Your task to perform on an android device: turn pop-ups off in chrome Image 0: 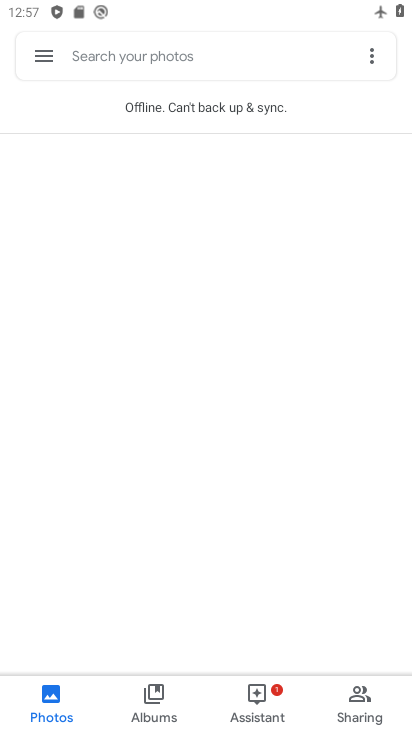
Step 0: press home button
Your task to perform on an android device: turn pop-ups off in chrome Image 1: 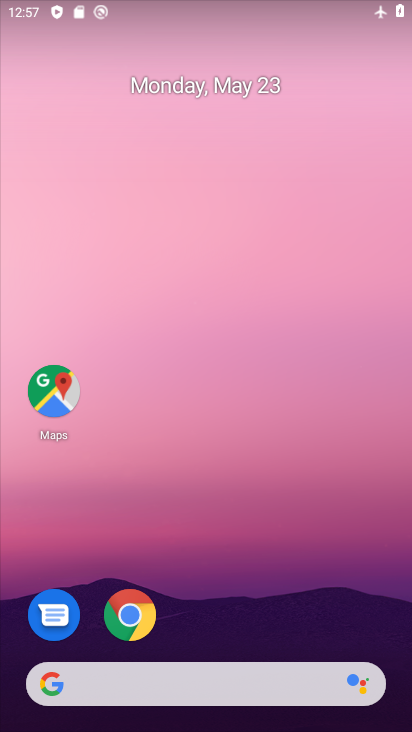
Step 1: click (138, 609)
Your task to perform on an android device: turn pop-ups off in chrome Image 2: 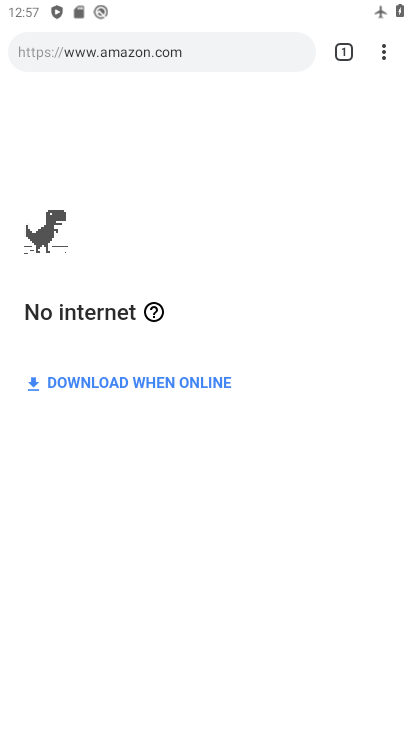
Step 2: click (383, 46)
Your task to perform on an android device: turn pop-ups off in chrome Image 3: 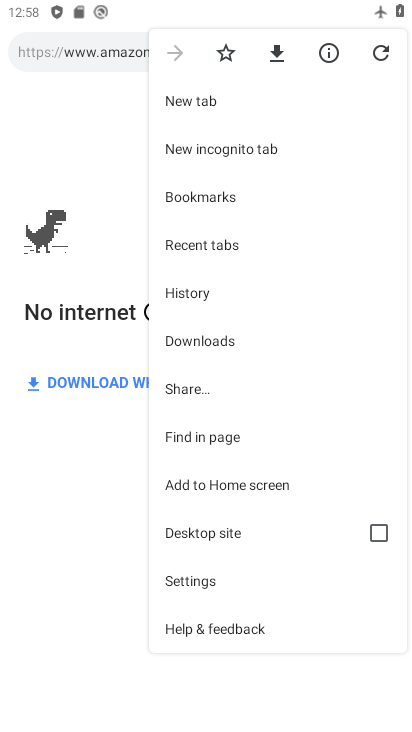
Step 3: click (162, 578)
Your task to perform on an android device: turn pop-ups off in chrome Image 4: 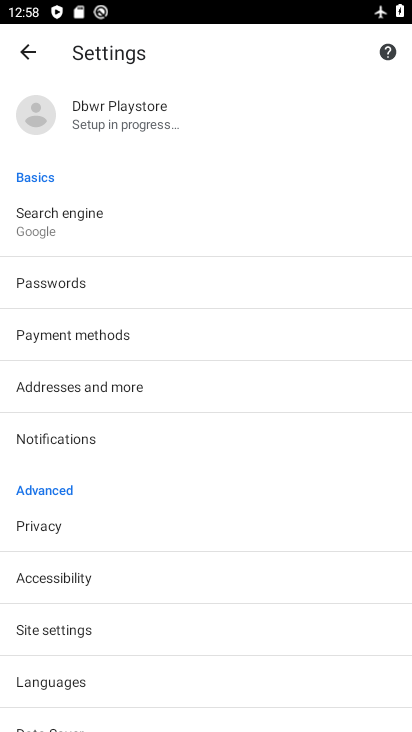
Step 4: click (61, 635)
Your task to perform on an android device: turn pop-ups off in chrome Image 5: 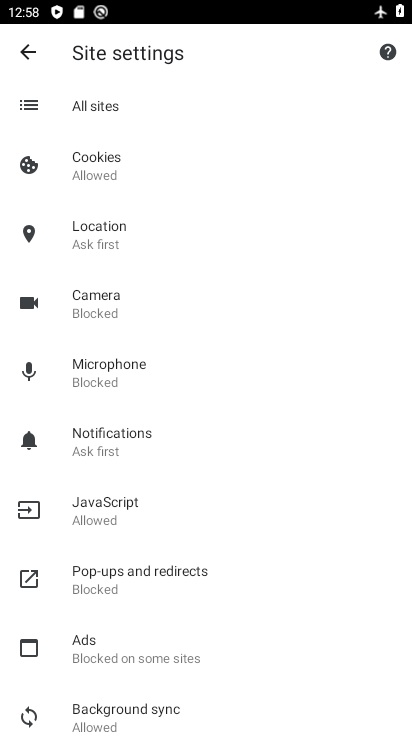
Step 5: click (122, 596)
Your task to perform on an android device: turn pop-ups off in chrome Image 6: 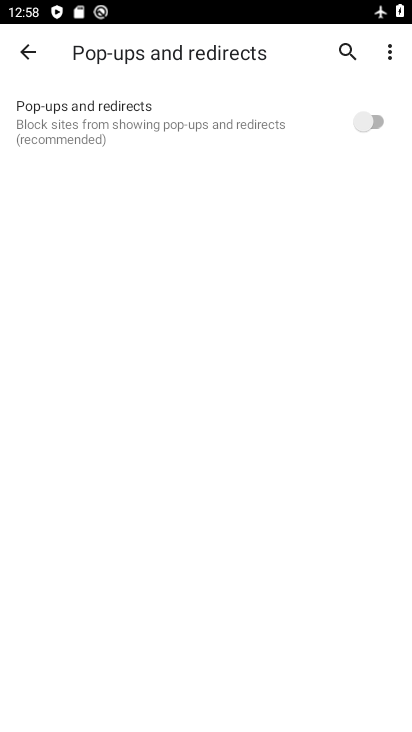
Step 6: task complete